Your task to perform on an android device: toggle sleep mode Image 0: 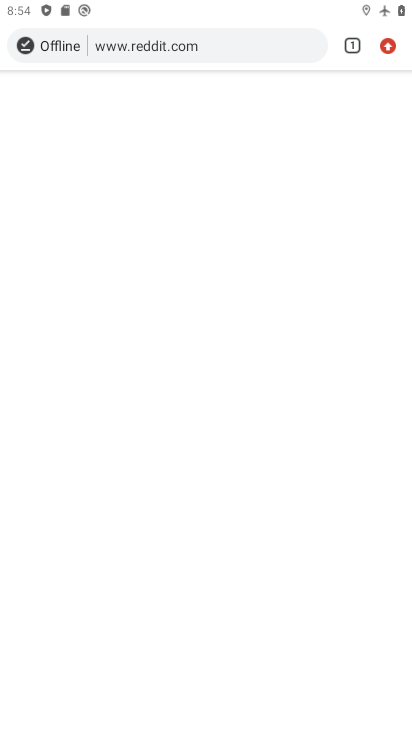
Step 0: press home button
Your task to perform on an android device: toggle sleep mode Image 1: 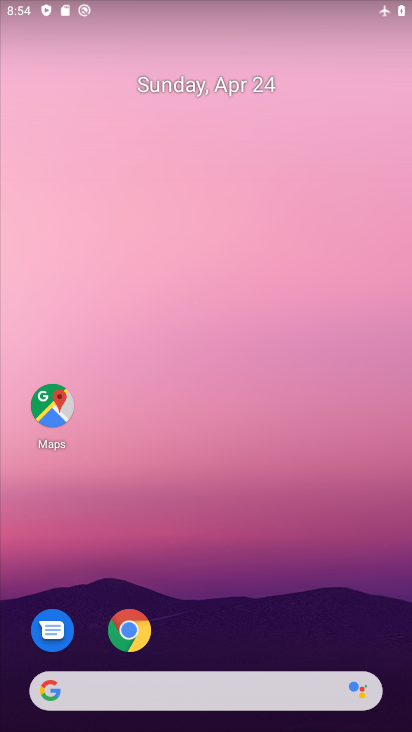
Step 1: drag from (171, 563) to (233, 251)
Your task to perform on an android device: toggle sleep mode Image 2: 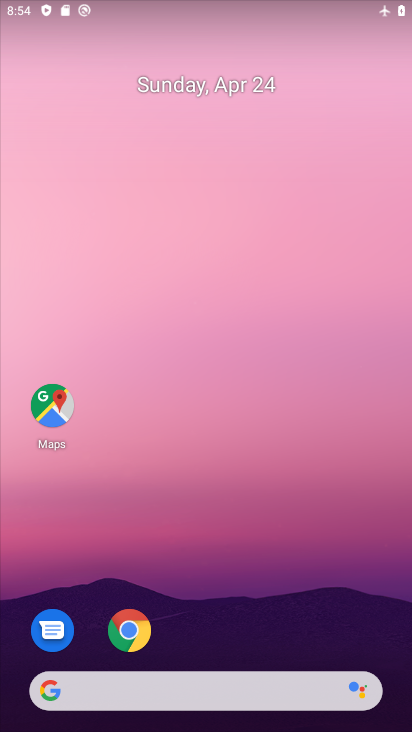
Step 2: drag from (259, 641) to (333, 167)
Your task to perform on an android device: toggle sleep mode Image 3: 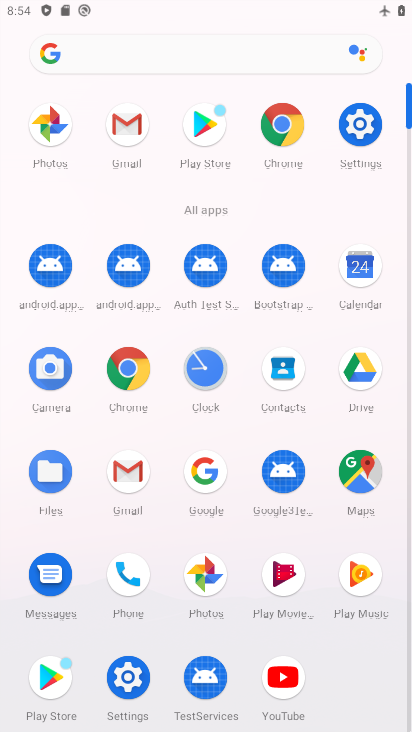
Step 3: click (364, 123)
Your task to perform on an android device: toggle sleep mode Image 4: 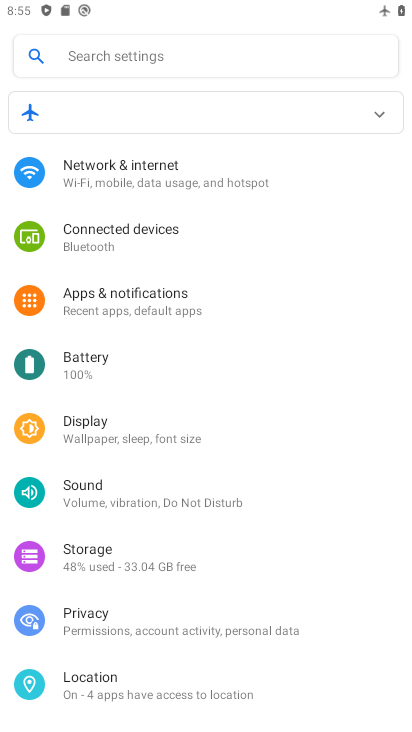
Step 4: click (169, 435)
Your task to perform on an android device: toggle sleep mode Image 5: 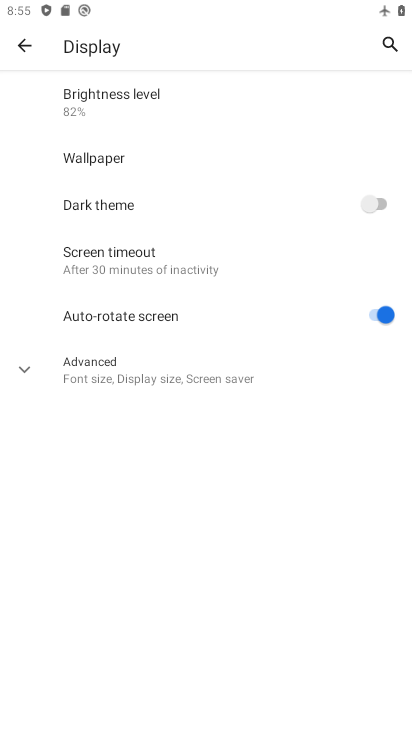
Step 5: task complete